Your task to perform on an android device: turn off location history Image 0: 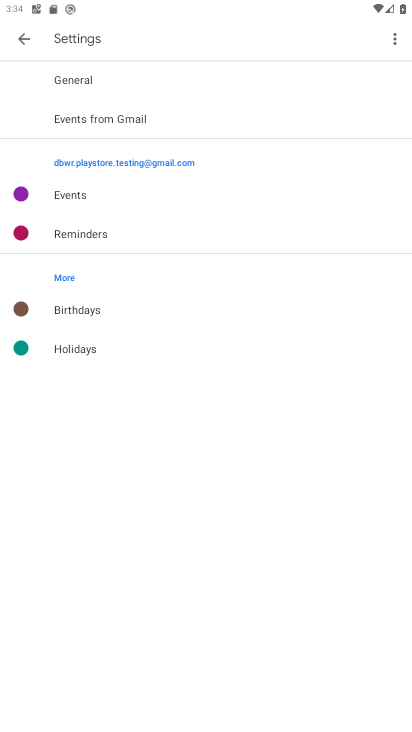
Step 0: press home button
Your task to perform on an android device: turn off location history Image 1: 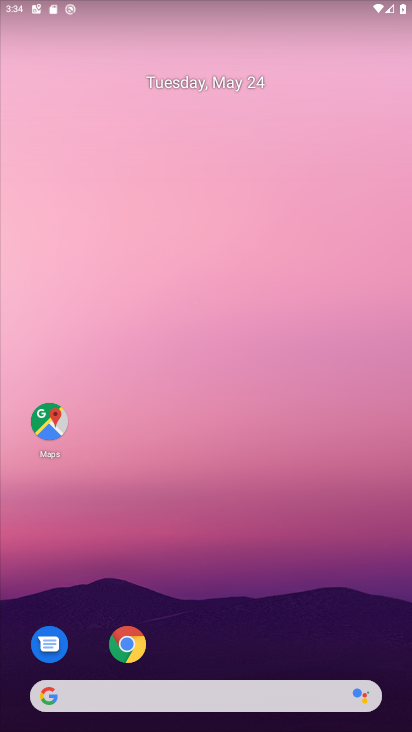
Step 1: drag from (229, 673) to (218, 387)
Your task to perform on an android device: turn off location history Image 2: 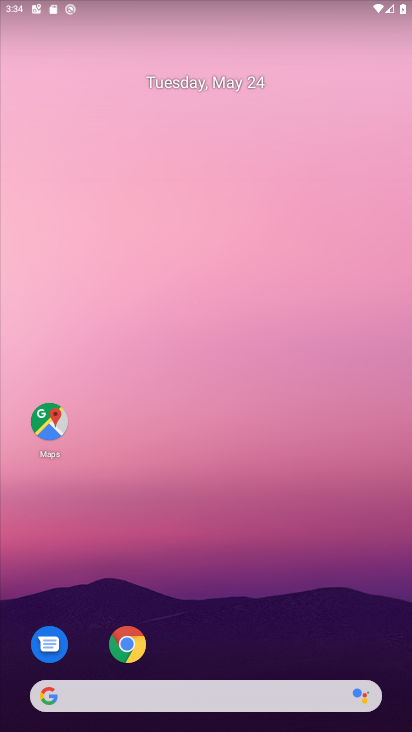
Step 2: drag from (283, 634) to (176, 2)
Your task to perform on an android device: turn off location history Image 3: 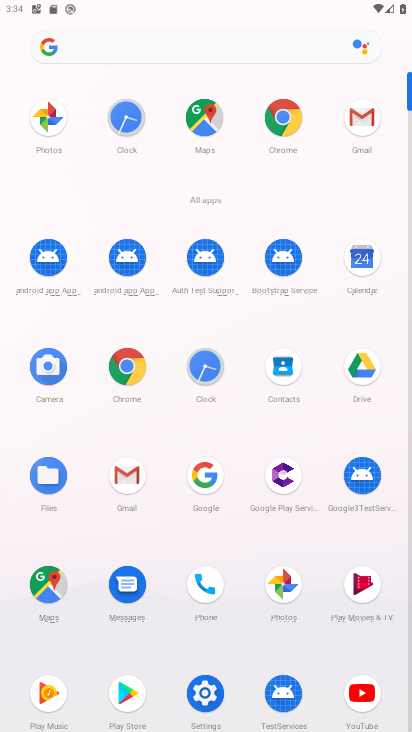
Step 3: click (206, 667)
Your task to perform on an android device: turn off location history Image 4: 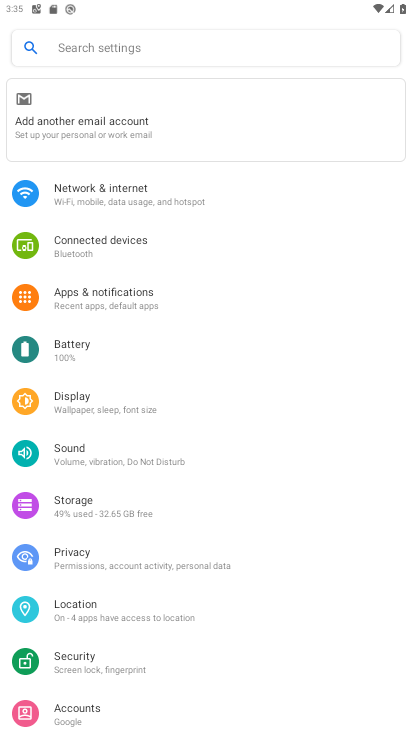
Step 4: click (93, 619)
Your task to perform on an android device: turn off location history Image 5: 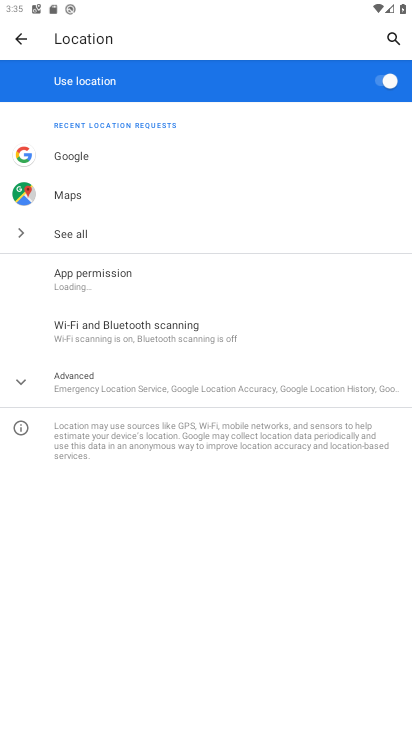
Step 5: click (199, 371)
Your task to perform on an android device: turn off location history Image 6: 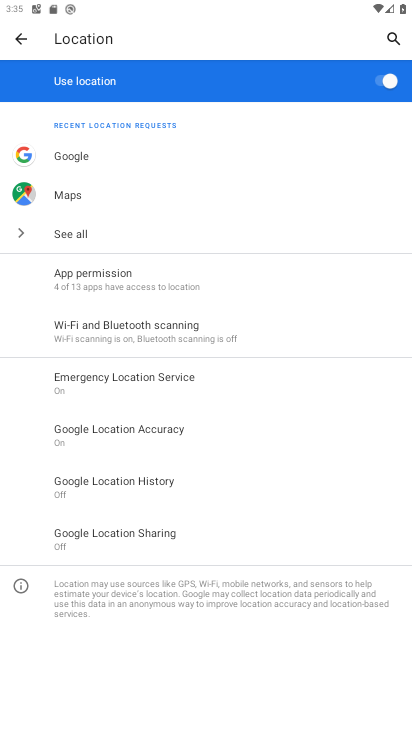
Step 6: click (221, 482)
Your task to perform on an android device: turn off location history Image 7: 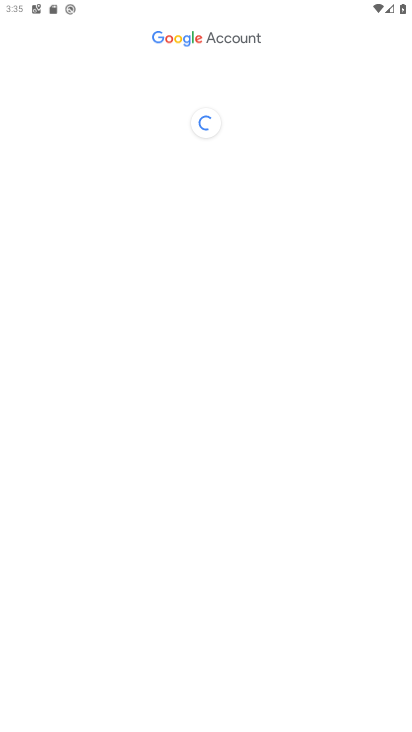
Step 7: task complete